Your task to perform on an android device: Open my contact list Image 0: 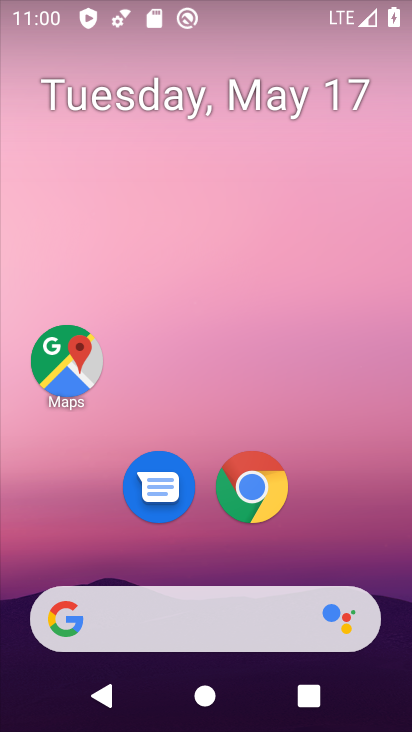
Step 0: drag from (277, 544) to (311, 167)
Your task to perform on an android device: Open my contact list Image 1: 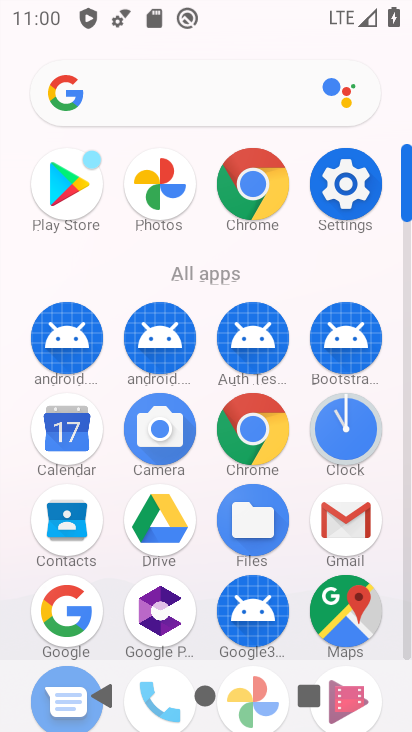
Step 1: click (61, 506)
Your task to perform on an android device: Open my contact list Image 2: 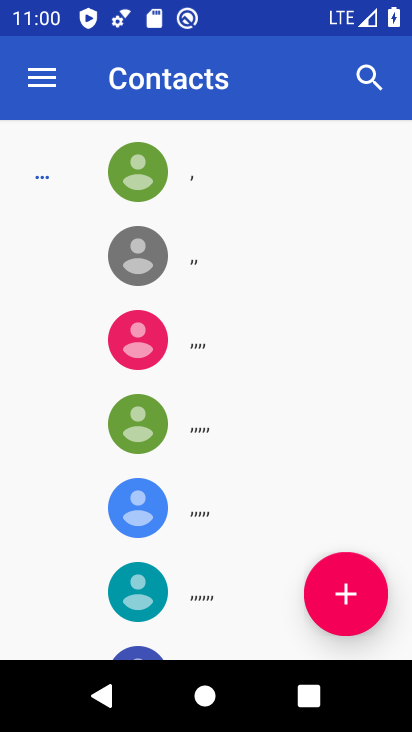
Step 2: task complete